Your task to perform on an android device: Google the capital of Brazil Image 0: 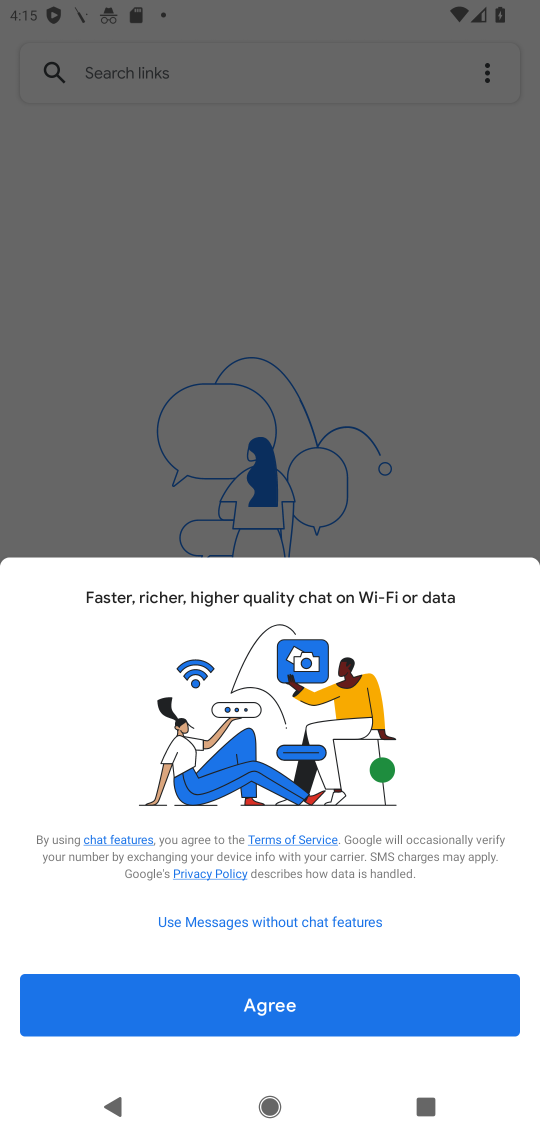
Step 0: press home button
Your task to perform on an android device: Google the capital of Brazil Image 1: 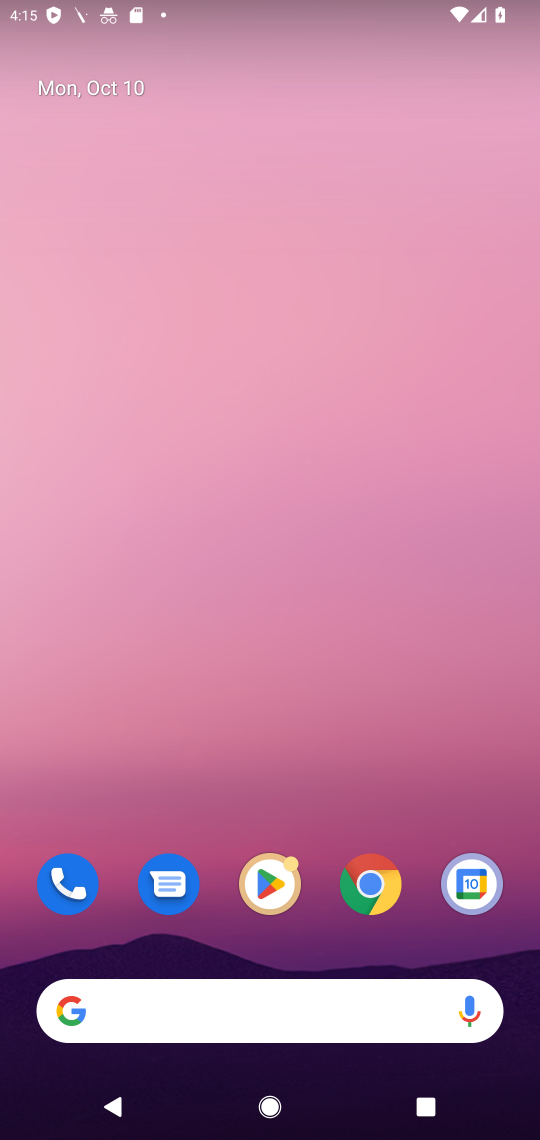
Step 1: click (281, 1012)
Your task to perform on an android device: Google the capital of Brazil Image 2: 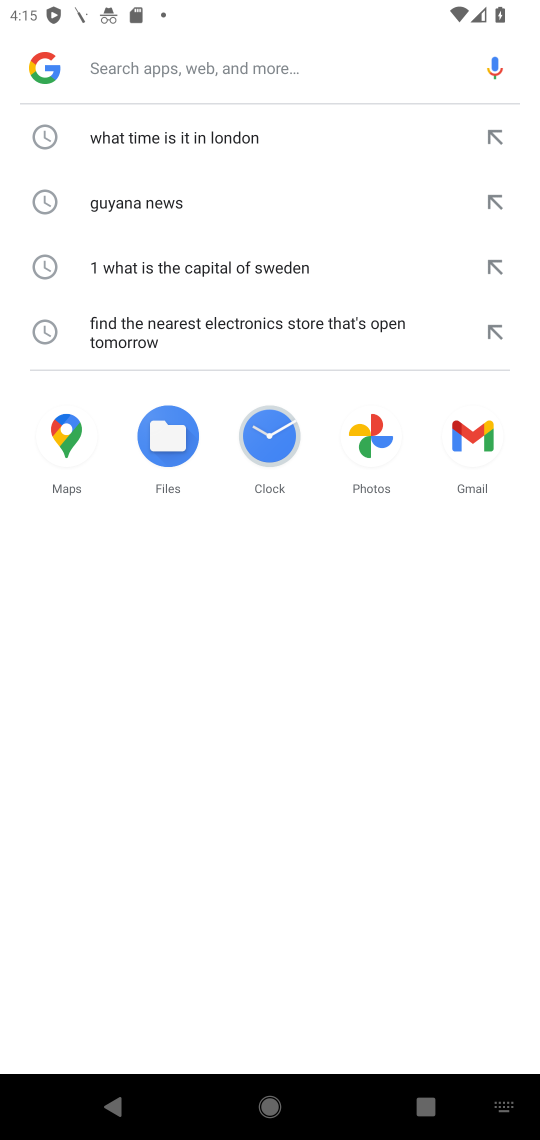
Step 2: type "capital of Brazil"
Your task to perform on an android device: Google the capital of Brazil Image 3: 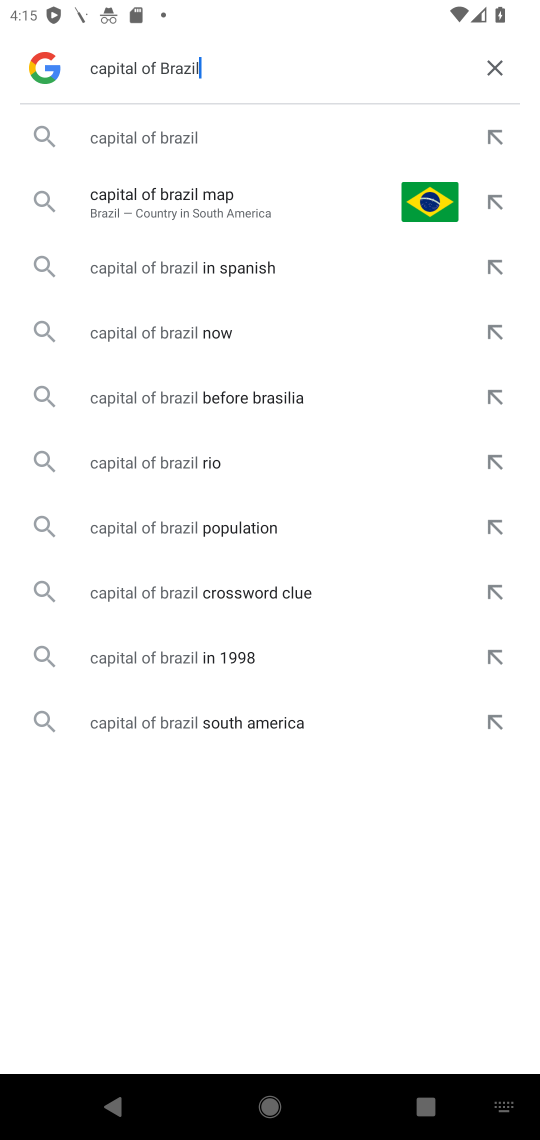
Step 3: click (190, 139)
Your task to perform on an android device: Google the capital of Brazil Image 4: 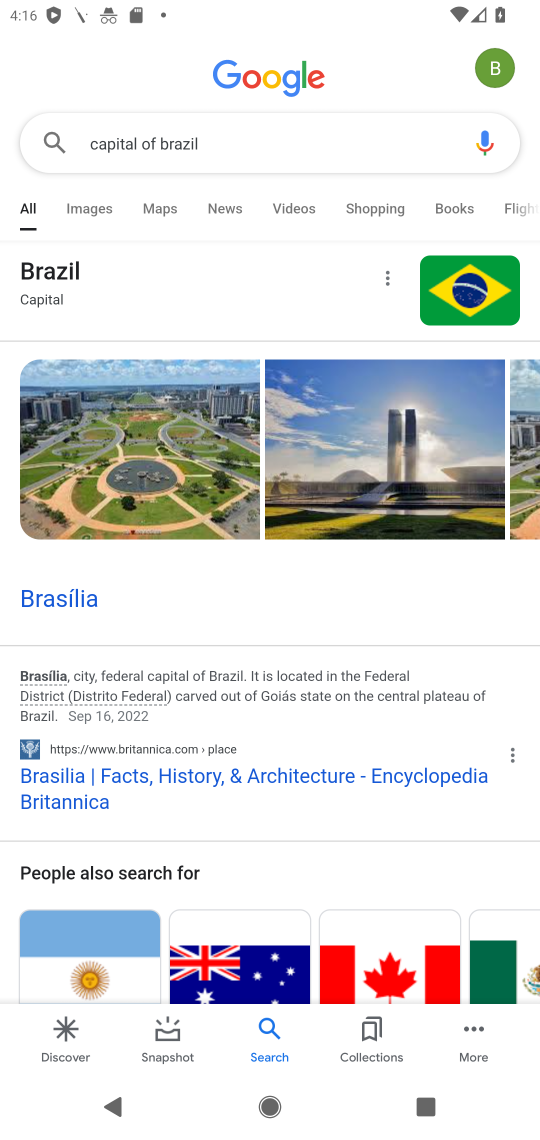
Step 4: task complete